Your task to perform on an android device: When is my next appointment? Image 0: 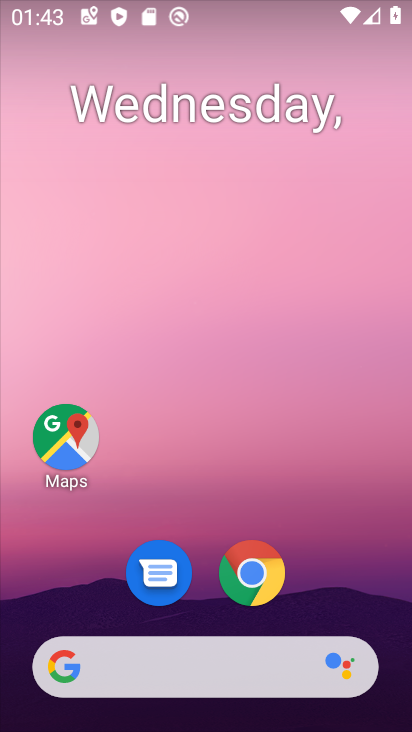
Step 0: drag from (307, 581) to (280, 0)
Your task to perform on an android device: When is my next appointment? Image 1: 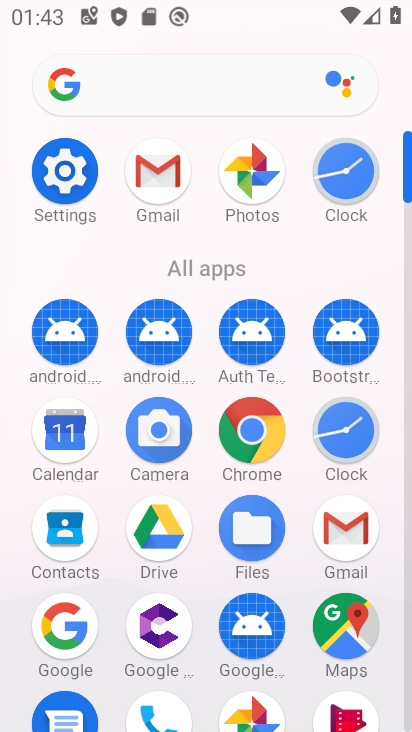
Step 1: click (65, 438)
Your task to perform on an android device: When is my next appointment? Image 2: 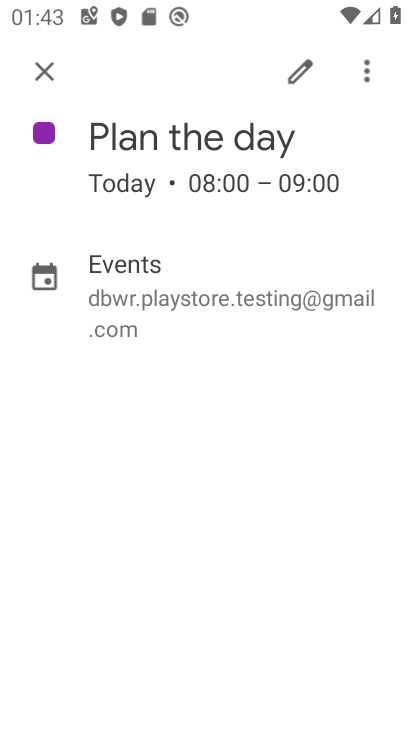
Step 2: click (42, 68)
Your task to perform on an android device: When is my next appointment? Image 3: 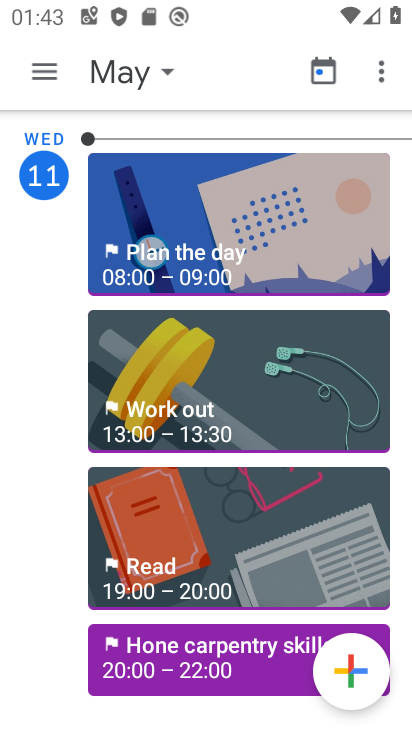
Step 3: click (161, 72)
Your task to perform on an android device: When is my next appointment? Image 4: 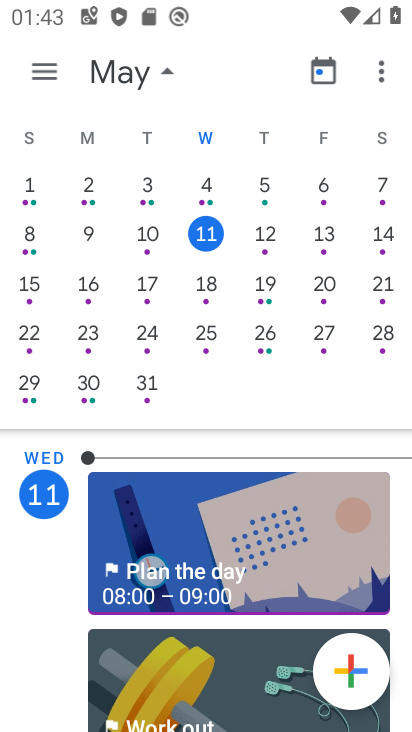
Step 4: click (319, 234)
Your task to perform on an android device: When is my next appointment? Image 5: 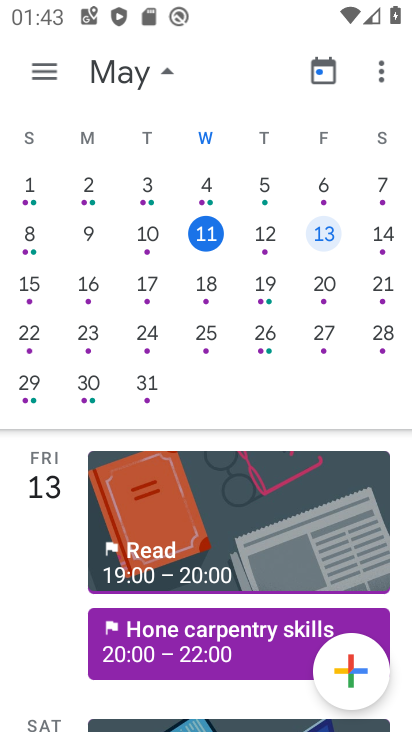
Step 5: click (43, 64)
Your task to perform on an android device: When is my next appointment? Image 6: 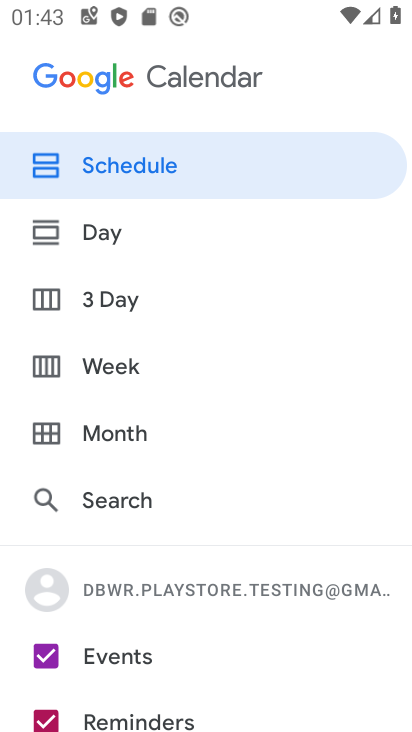
Step 6: click (126, 366)
Your task to perform on an android device: When is my next appointment? Image 7: 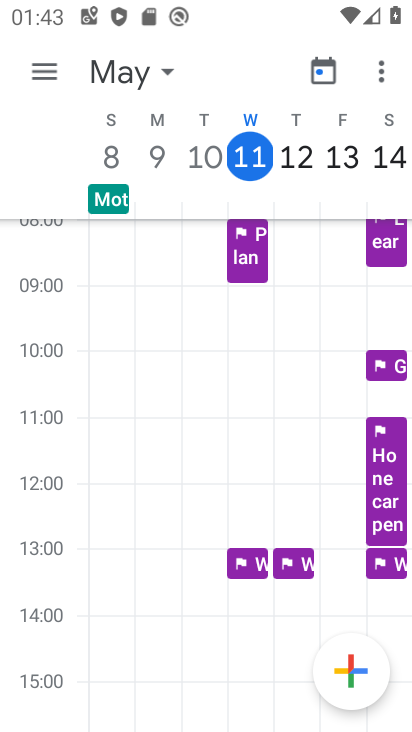
Step 7: task complete